Your task to perform on an android device: What's on my calendar today? Image 0: 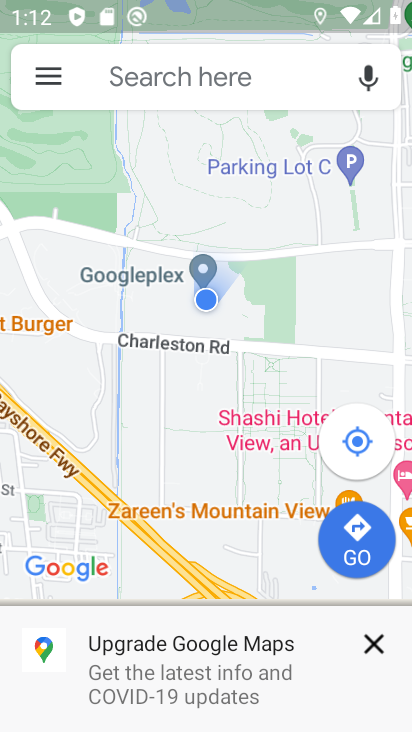
Step 0: press home button
Your task to perform on an android device: What's on my calendar today? Image 1: 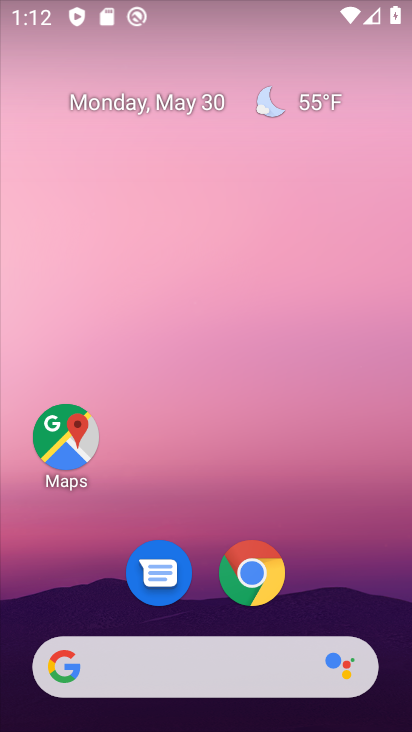
Step 1: drag from (336, 597) to (232, 58)
Your task to perform on an android device: What's on my calendar today? Image 2: 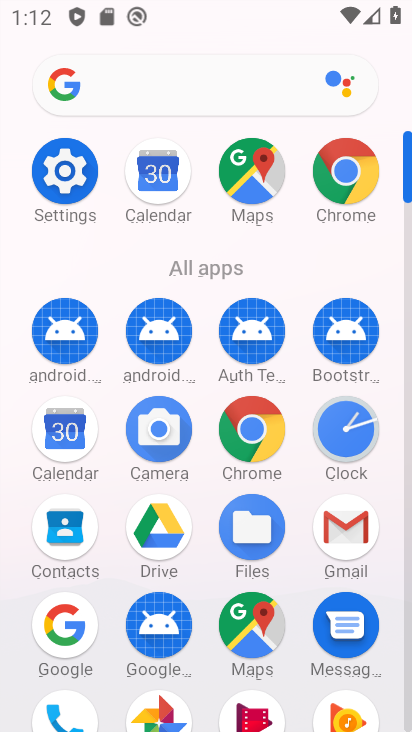
Step 2: click (157, 173)
Your task to perform on an android device: What's on my calendar today? Image 3: 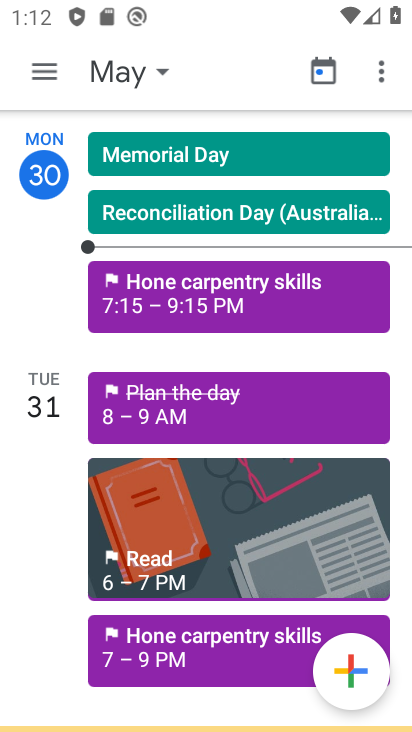
Step 3: click (163, 75)
Your task to perform on an android device: What's on my calendar today? Image 4: 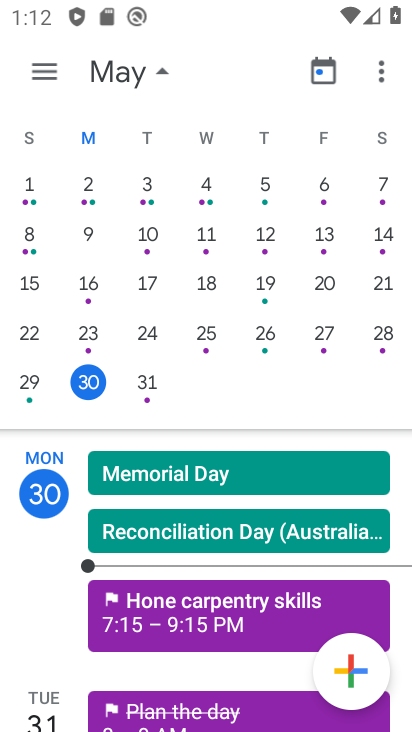
Step 4: click (91, 377)
Your task to perform on an android device: What's on my calendar today? Image 5: 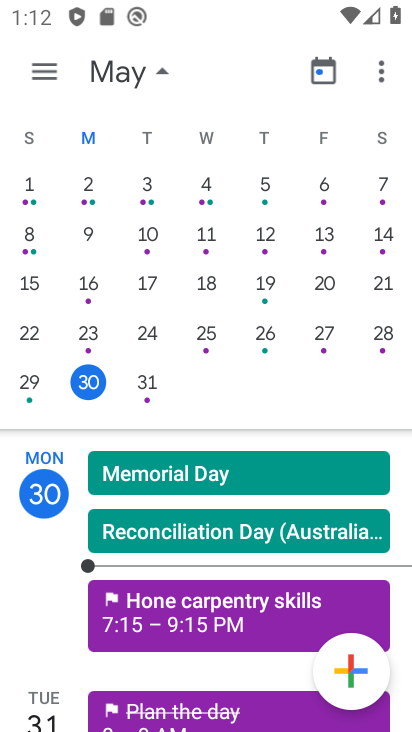
Step 5: click (42, 71)
Your task to perform on an android device: What's on my calendar today? Image 6: 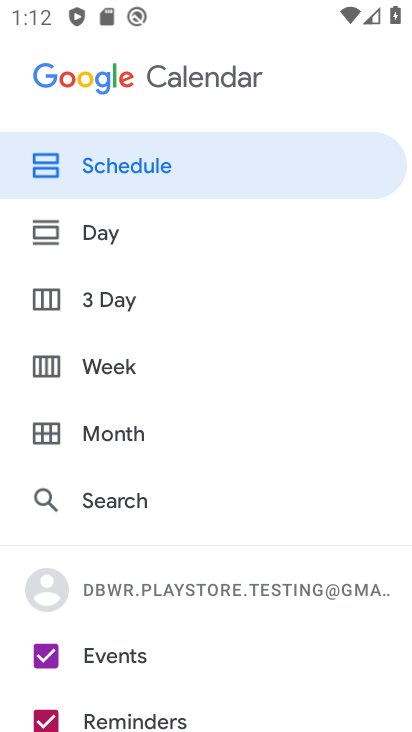
Step 6: click (102, 159)
Your task to perform on an android device: What's on my calendar today? Image 7: 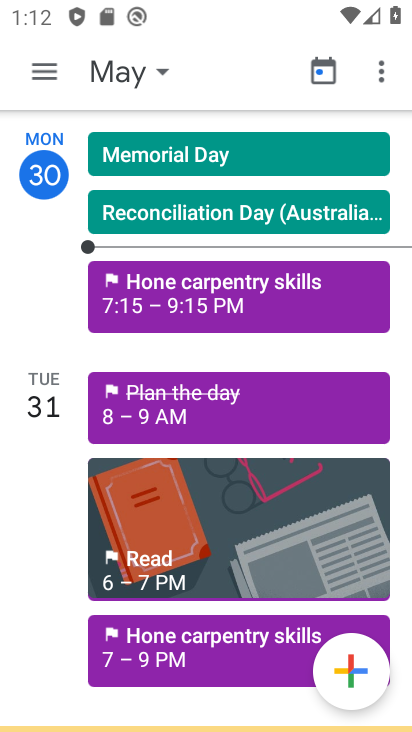
Step 7: task complete